Your task to perform on an android device: turn off wifi Image 0: 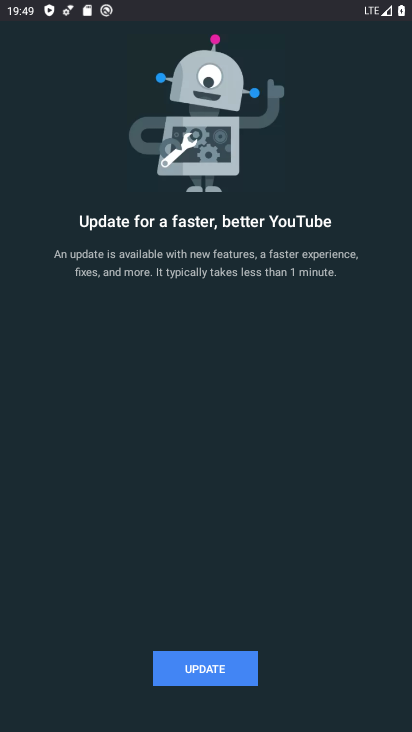
Step 0: press home button
Your task to perform on an android device: turn off wifi Image 1: 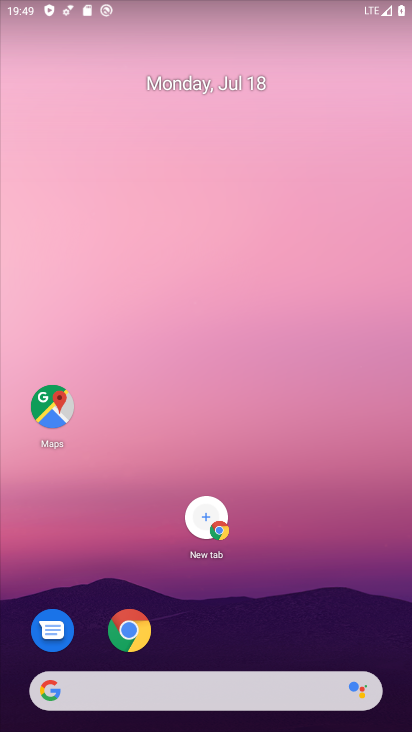
Step 1: drag from (214, 652) to (207, 304)
Your task to perform on an android device: turn off wifi Image 2: 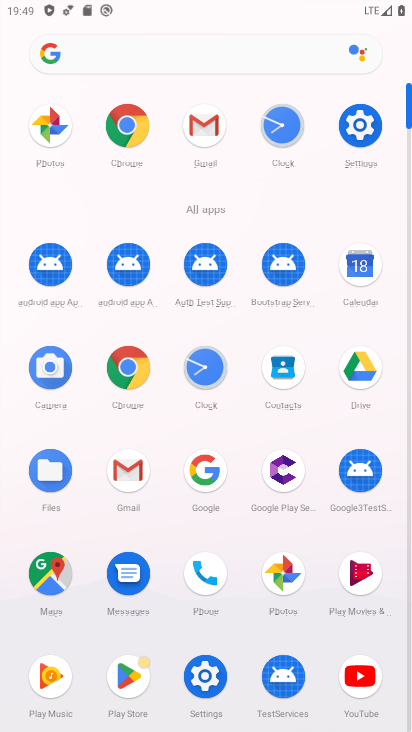
Step 2: click (363, 127)
Your task to perform on an android device: turn off wifi Image 3: 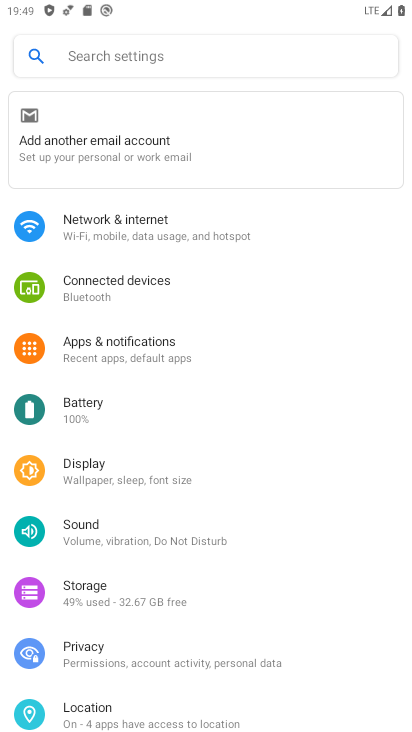
Step 3: click (83, 218)
Your task to perform on an android device: turn off wifi Image 4: 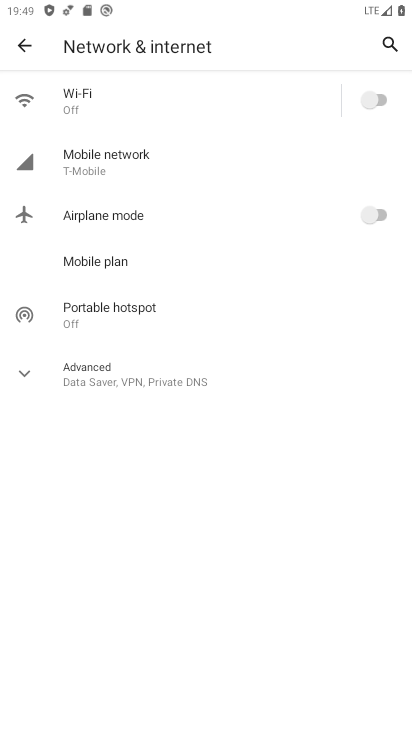
Step 4: task complete